Your task to perform on an android device: Open calendar and show me the first week of next month Image 0: 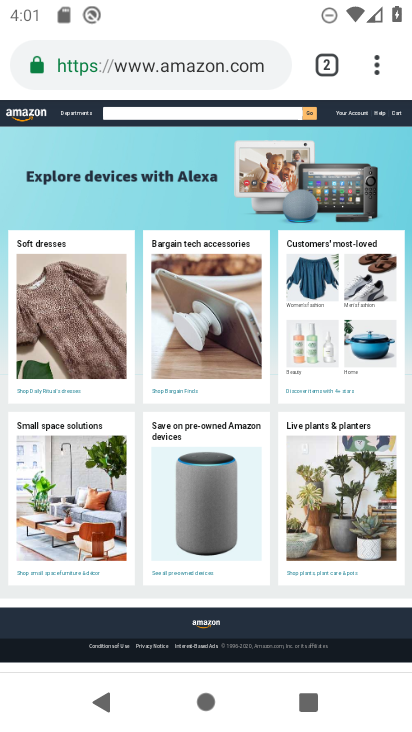
Step 0: press home button
Your task to perform on an android device: Open calendar and show me the first week of next month Image 1: 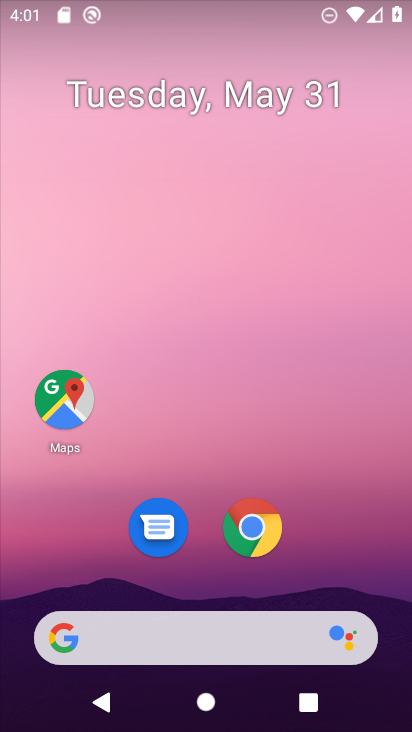
Step 1: drag from (186, 601) to (124, 19)
Your task to perform on an android device: Open calendar and show me the first week of next month Image 2: 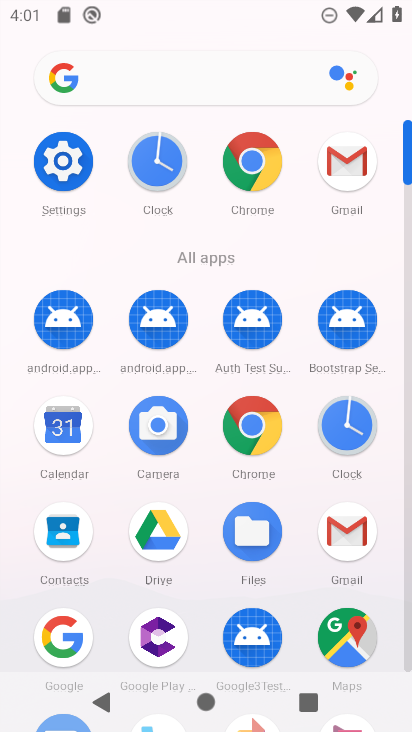
Step 2: click (81, 425)
Your task to perform on an android device: Open calendar and show me the first week of next month Image 3: 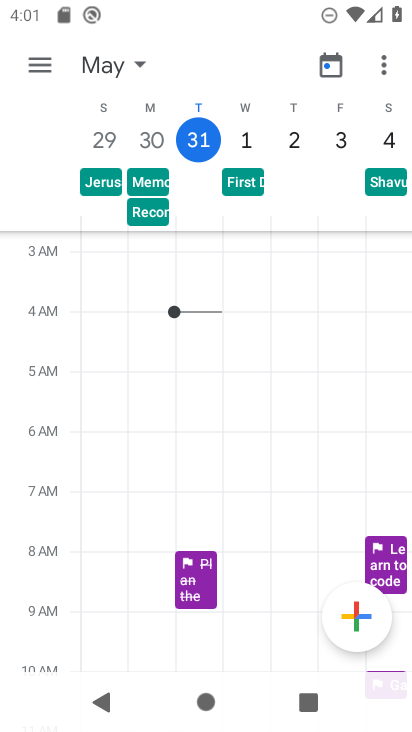
Step 3: task complete